Your task to perform on an android device: Go to network settings Image 0: 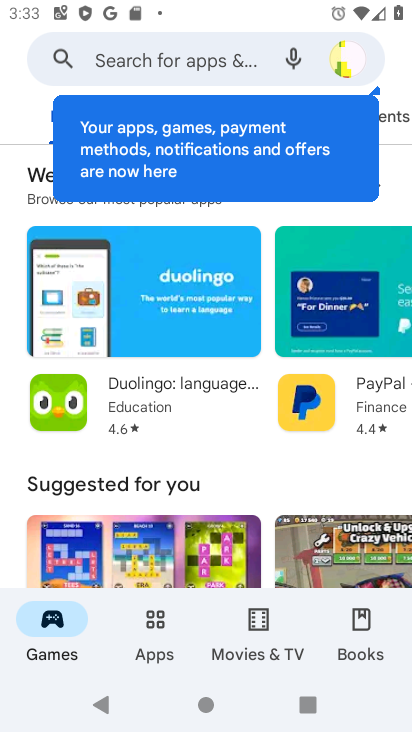
Step 0: press home button
Your task to perform on an android device: Go to network settings Image 1: 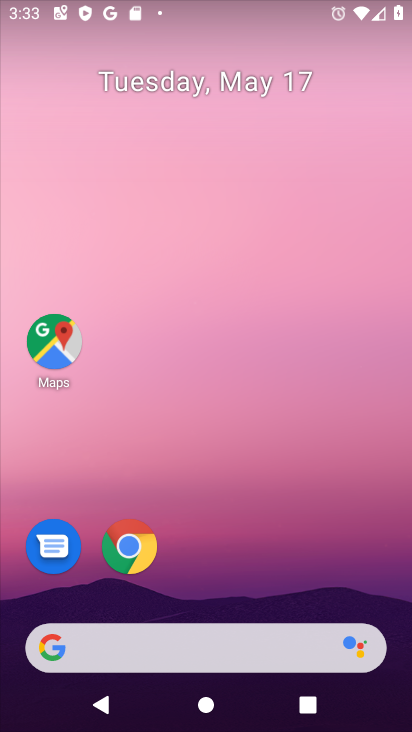
Step 1: click (343, 220)
Your task to perform on an android device: Go to network settings Image 2: 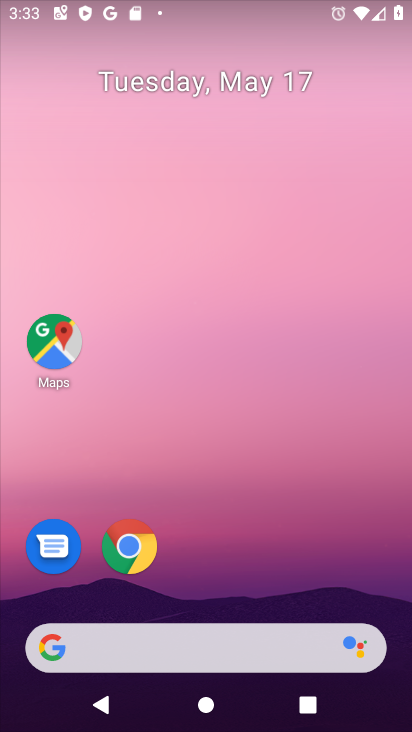
Step 2: drag from (407, 650) to (375, 129)
Your task to perform on an android device: Go to network settings Image 3: 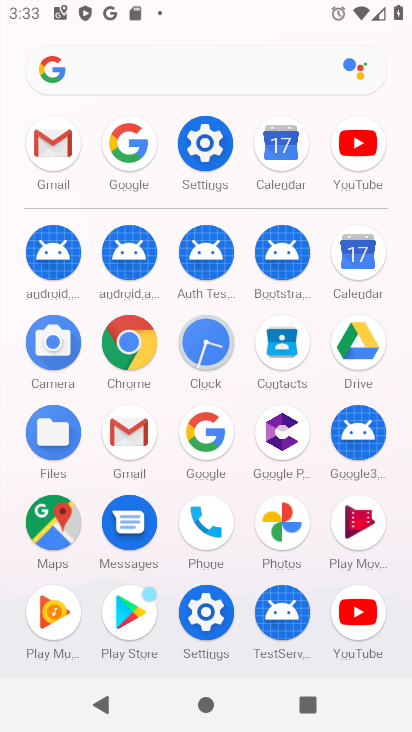
Step 3: click (219, 142)
Your task to perform on an android device: Go to network settings Image 4: 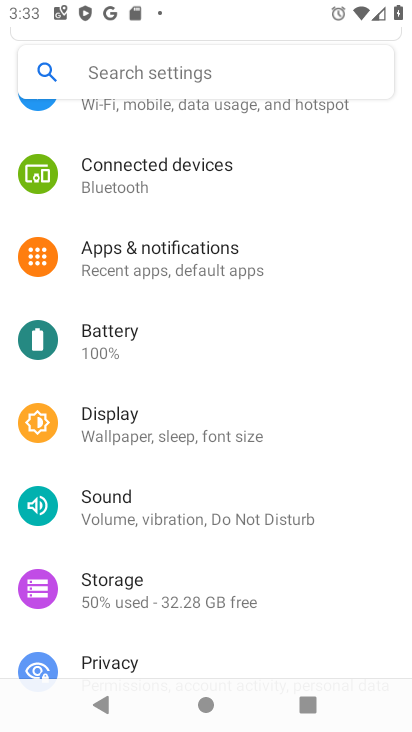
Step 4: drag from (312, 240) to (319, 420)
Your task to perform on an android device: Go to network settings Image 5: 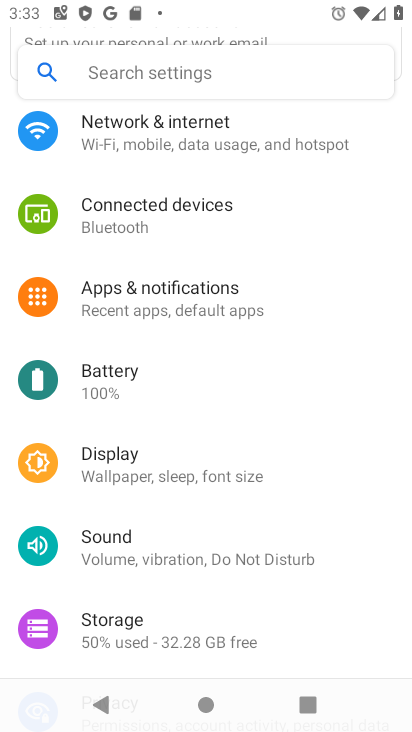
Step 5: click (158, 127)
Your task to perform on an android device: Go to network settings Image 6: 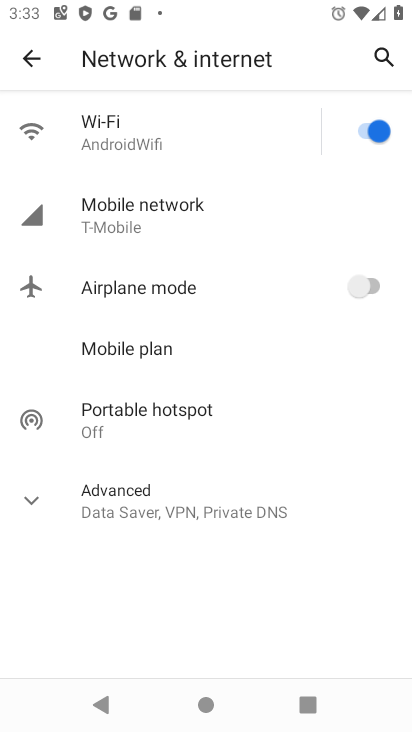
Step 6: click (105, 202)
Your task to perform on an android device: Go to network settings Image 7: 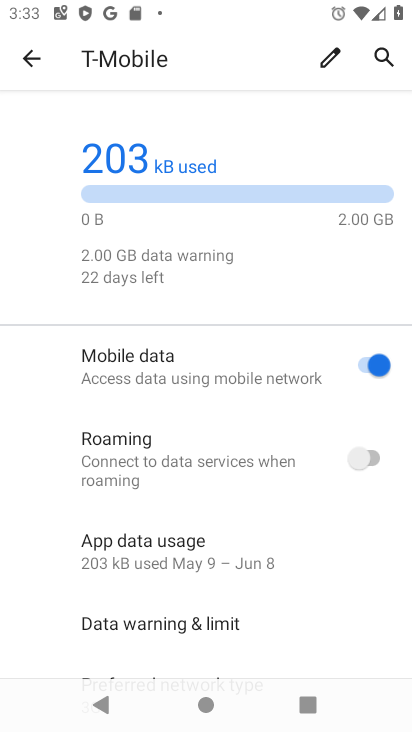
Step 7: task complete